Your task to perform on an android device: Show me the alarms in the clock app Image 0: 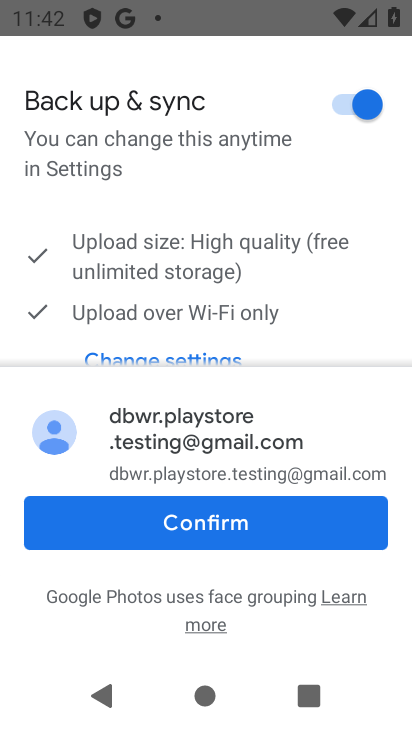
Step 0: press home button
Your task to perform on an android device: Show me the alarms in the clock app Image 1: 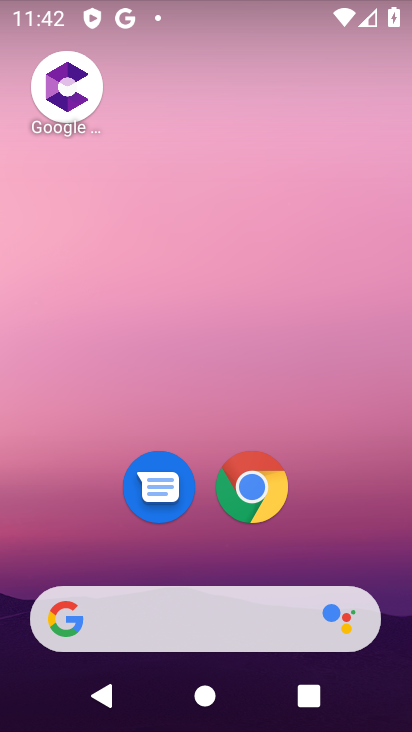
Step 1: drag from (311, 544) to (331, 4)
Your task to perform on an android device: Show me the alarms in the clock app Image 2: 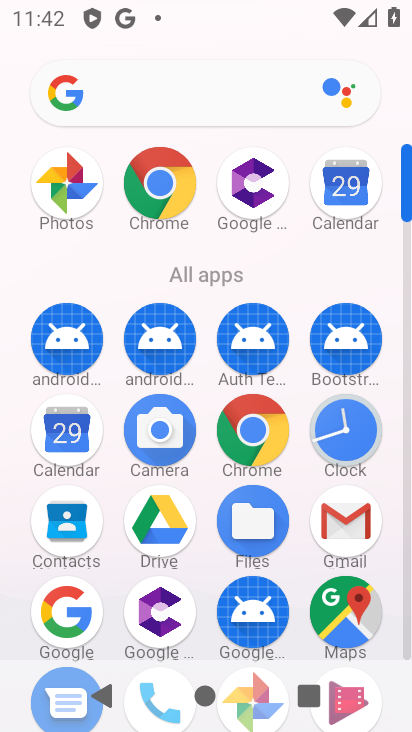
Step 2: click (343, 420)
Your task to perform on an android device: Show me the alarms in the clock app Image 3: 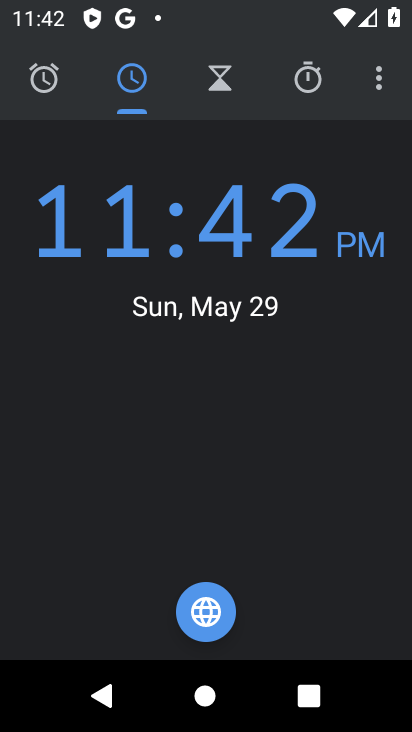
Step 3: click (41, 83)
Your task to perform on an android device: Show me the alarms in the clock app Image 4: 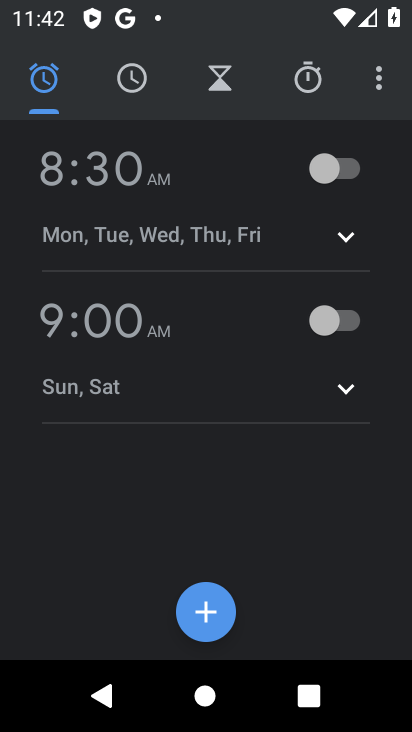
Step 4: task complete